Your task to perform on an android device: How much does a 3 bedroom apartment rent for in San Francisco? Image 0: 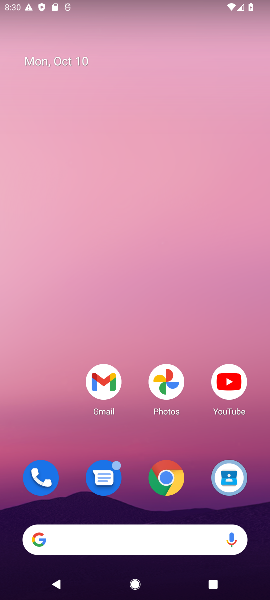
Step 0: click (166, 474)
Your task to perform on an android device: How much does a 3 bedroom apartment rent for in San Francisco? Image 1: 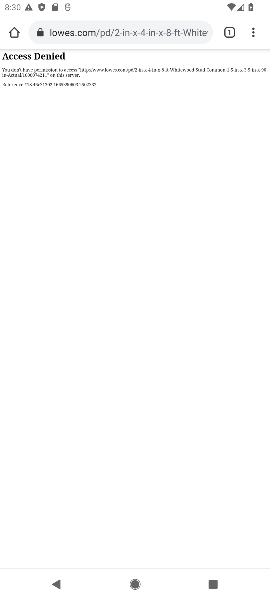
Step 1: click (144, 31)
Your task to perform on an android device: How much does a 3 bedroom apartment rent for in San Francisco? Image 2: 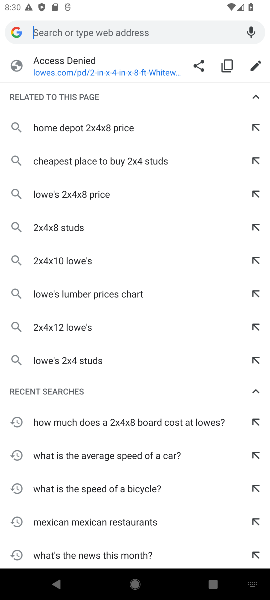
Step 2: type "How much does a 3 bedroom apartment rent for in San Francisco?"
Your task to perform on an android device: How much does a 3 bedroom apartment rent for in San Francisco? Image 3: 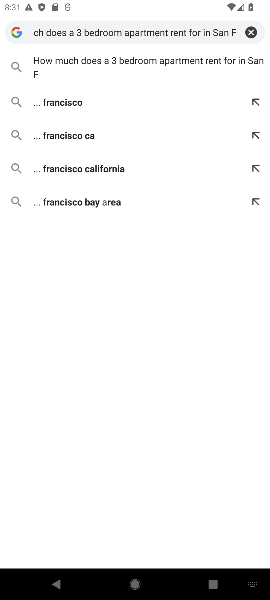
Step 3: click (125, 67)
Your task to perform on an android device: How much does a 3 bedroom apartment rent for in San Francisco? Image 4: 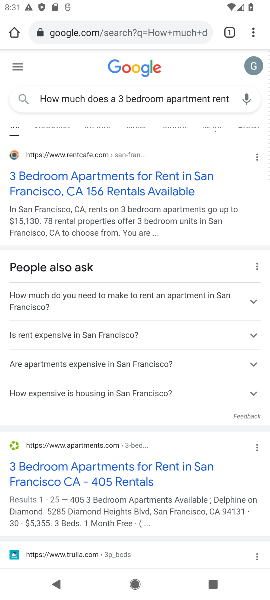
Step 4: click (174, 183)
Your task to perform on an android device: How much does a 3 bedroom apartment rent for in San Francisco? Image 5: 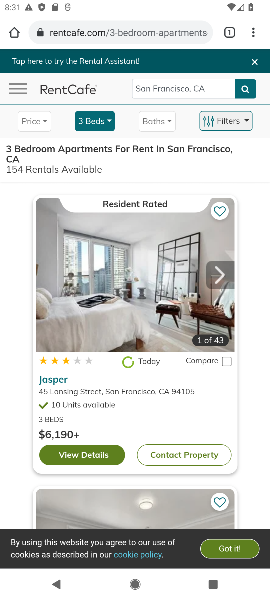
Step 5: task complete